Your task to perform on an android device: turn off wifi Image 0: 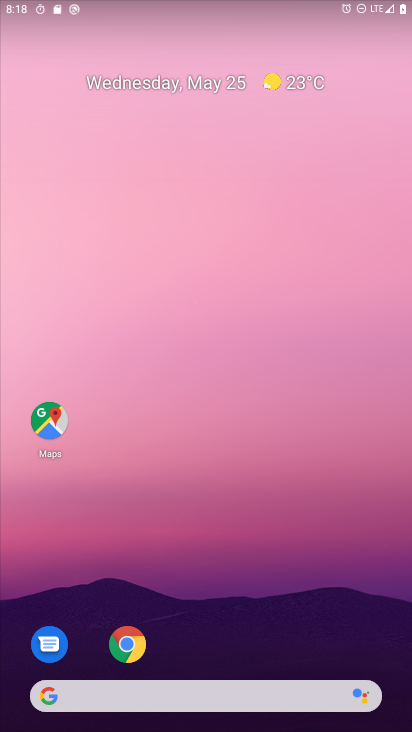
Step 0: drag from (360, 622) to (314, 119)
Your task to perform on an android device: turn off wifi Image 1: 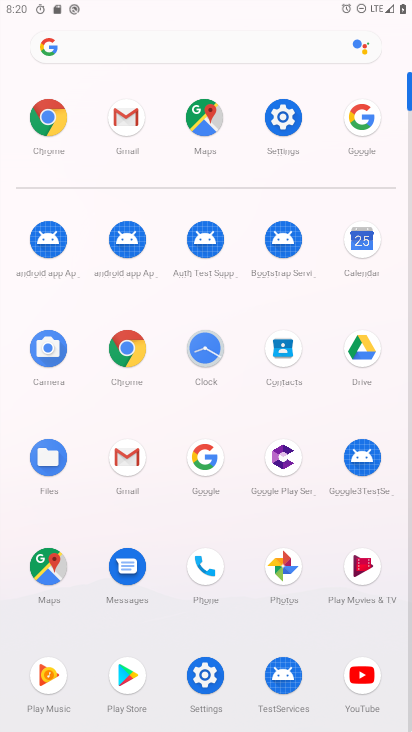
Step 1: task complete